Your task to perform on an android device: change your default location settings in chrome Image 0: 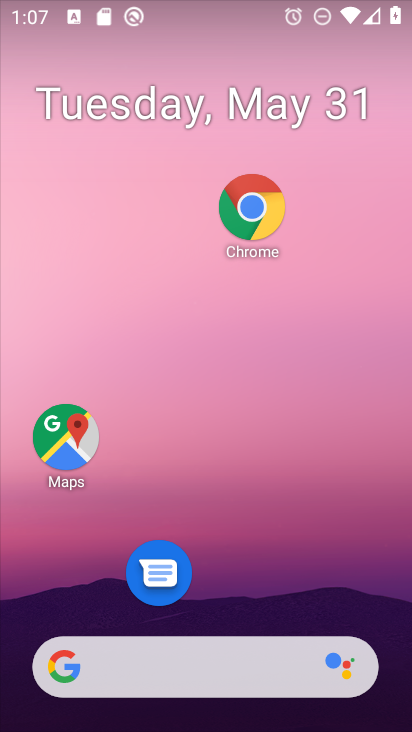
Step 0: drag from (276, 647) to (298, 168)
Your task to perform on an android device: change your default location settings in chrome Image 1: 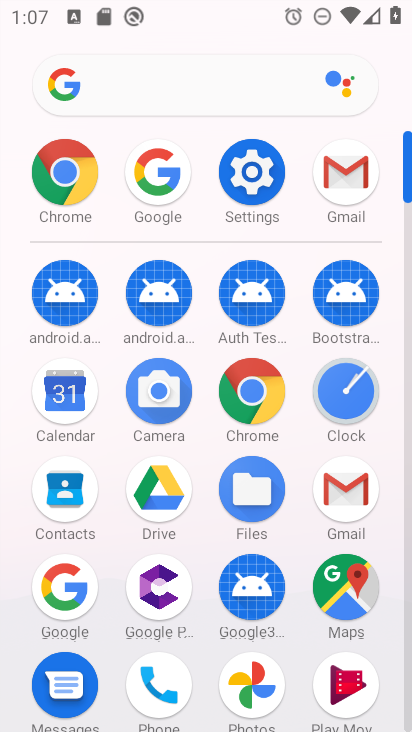
Step 1: click (60, 207)
Your task to perform on an android device: change your default location settings in chrome Image 2: 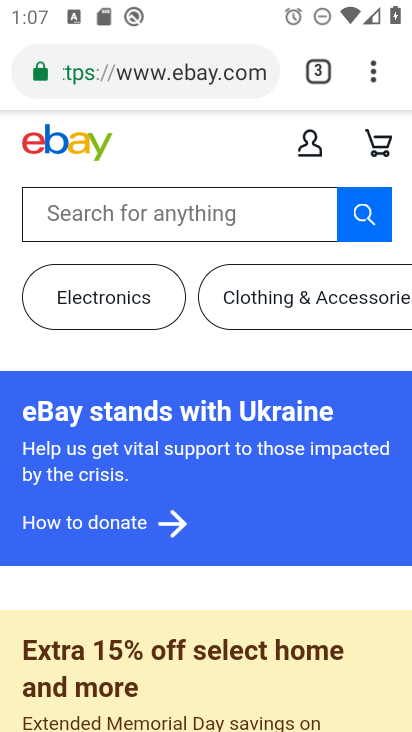
Step 2: click (378, 79)
Your task to perform on an android device: change your default location settings in chrome Image 3: 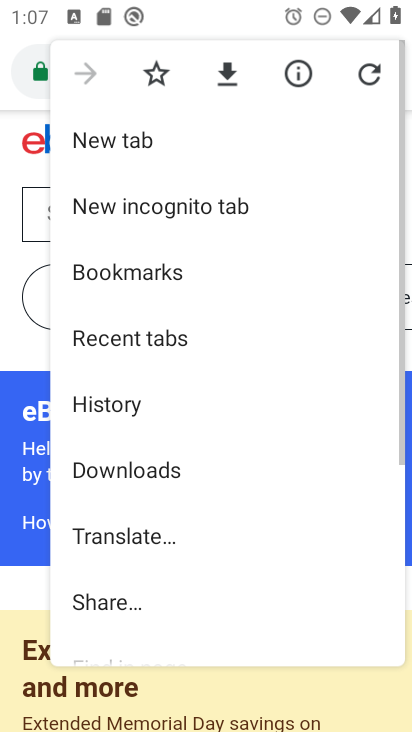
Step 3: drag from (211, 477) to (273, 159)
Your task to perform on an android device: change your default location settings in chrome Image 4: 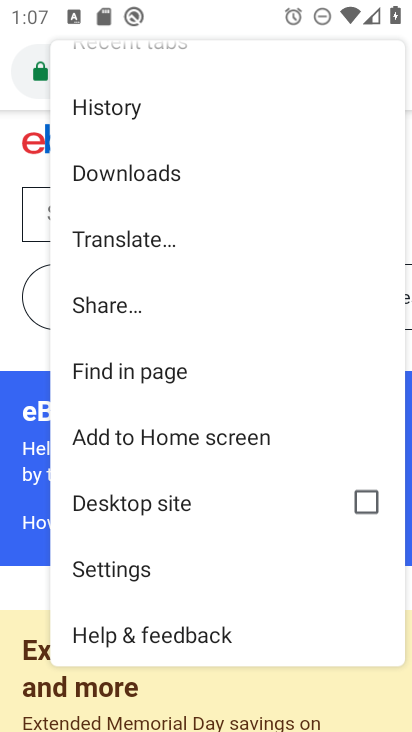
Step 4: click (141, 568)
Your task to perform on an android device: change your default location settings in chrome Image 5: 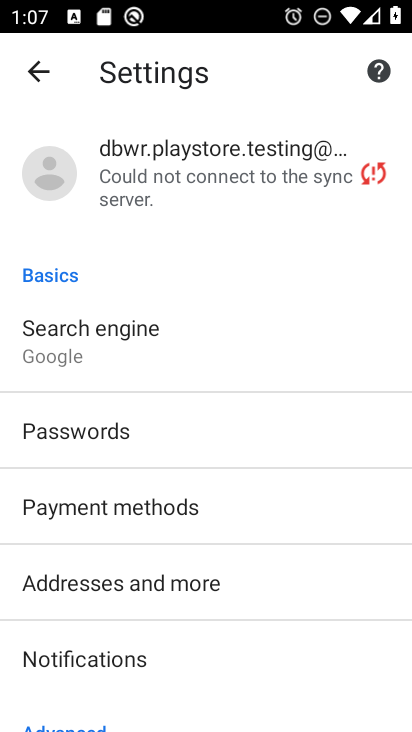
Step 5: drag from (138, 579) to (185, 297)
Your task to perform on an android device: change your default location settings in chrome Image 6: 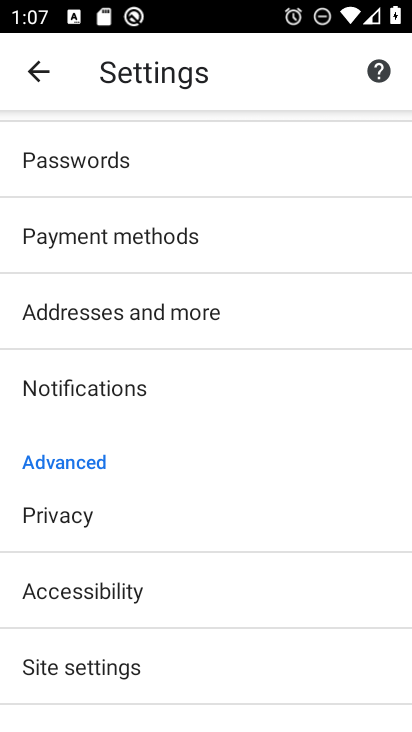
Step 6: drag from (173, 569) to (191, 390)
Your task to perform on an android device: change your default location settings in chrome Image 7: 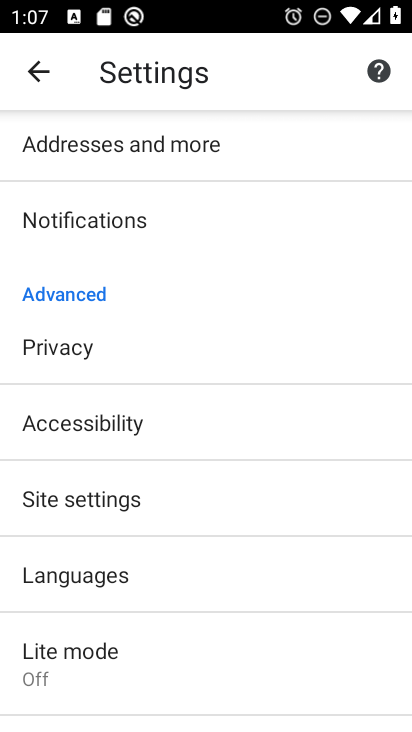
Step 7: click (123, 507)
Your task to perform on an android device: change your default location settings in chrome Image 8: 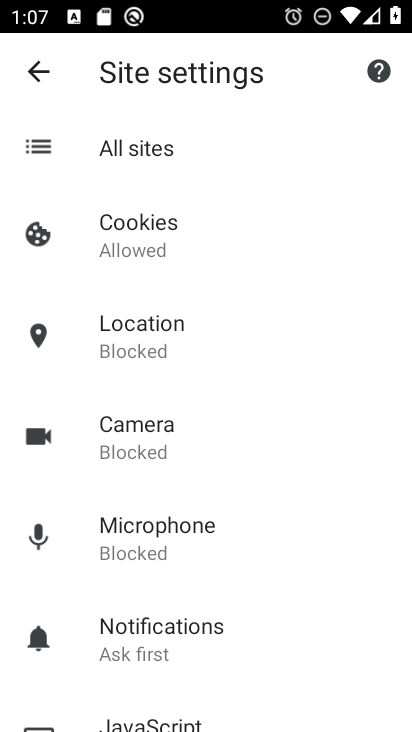
Step 8: click (156, 342)
Your task to perform on an android device: change your default location settings in chrome Image 9: 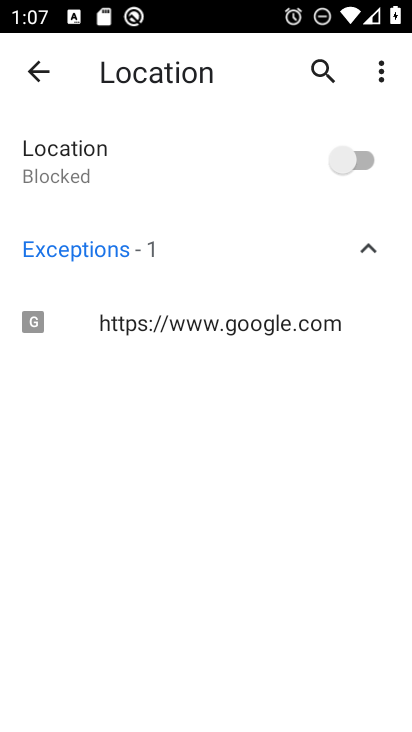
Step 9: click (363, 163)
Your task to perform on an android device: change your default location settings in chrome Image 10: 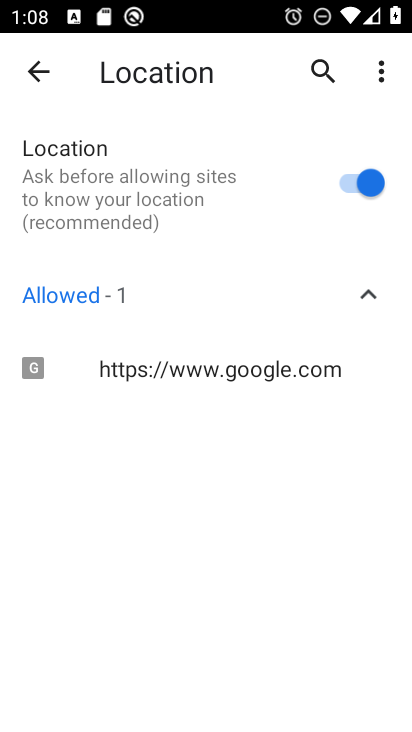
Step 10: task complete